Your task to perform on an android device: turn notification dots on Image 0: 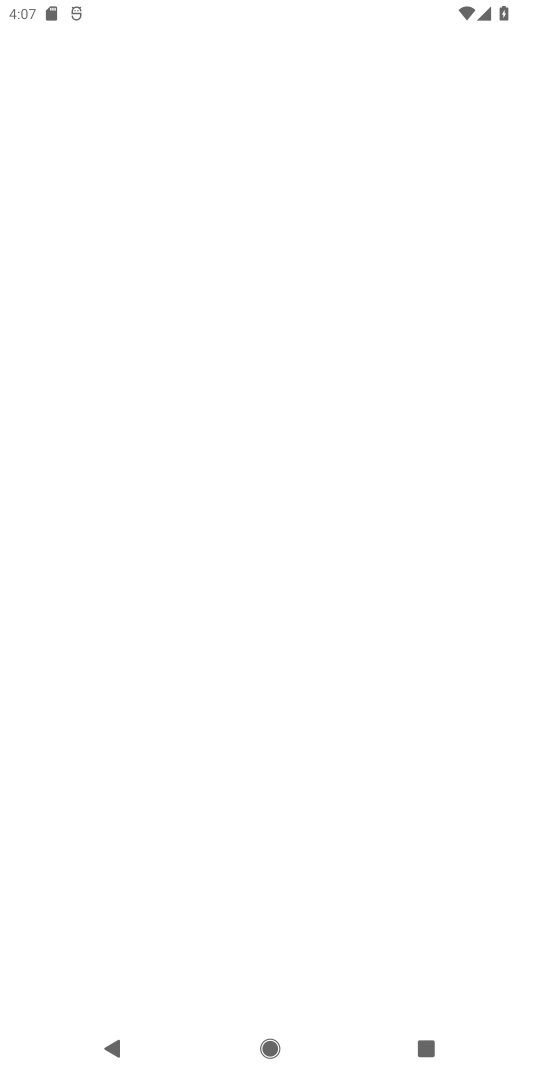
Step 0: press home button
Your task to perform on an android device: turn notification dots on Image 1: 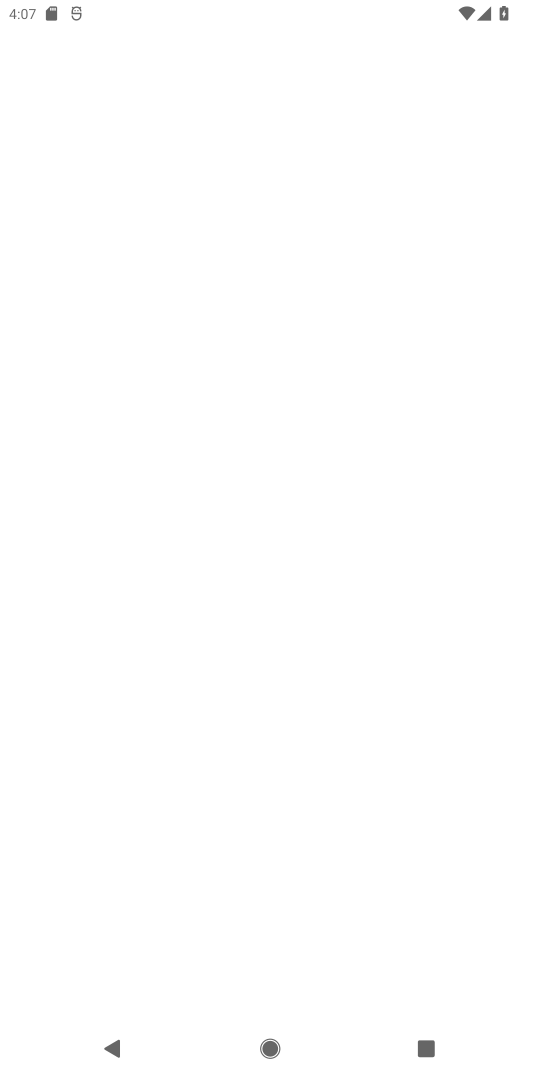
Step 1: press home button
Your task to perform on an android device: turn notification dots on Image 2: 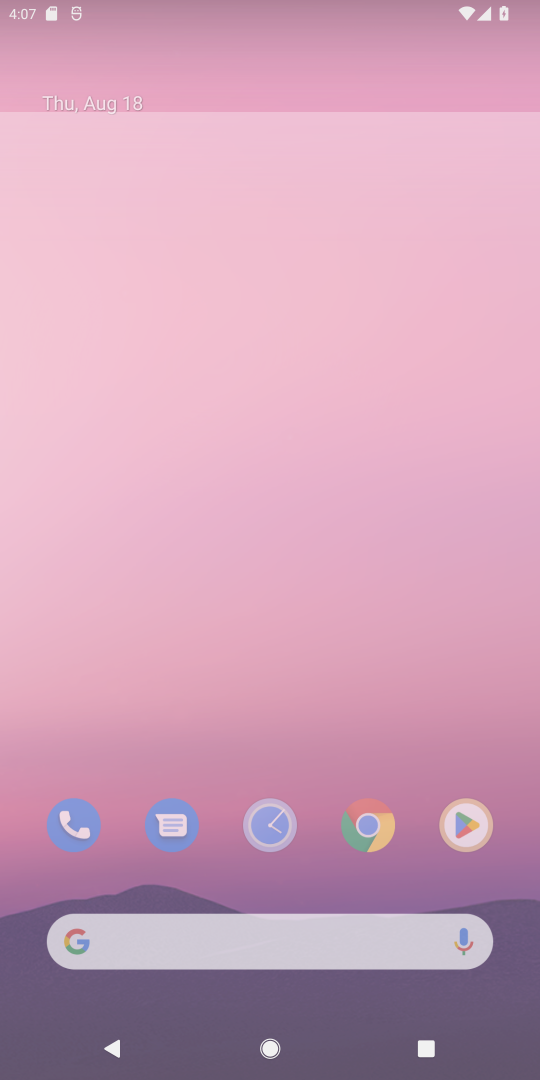
Step 2: press home button
Your task to perform on an android device: turn notification dots on Image 3: 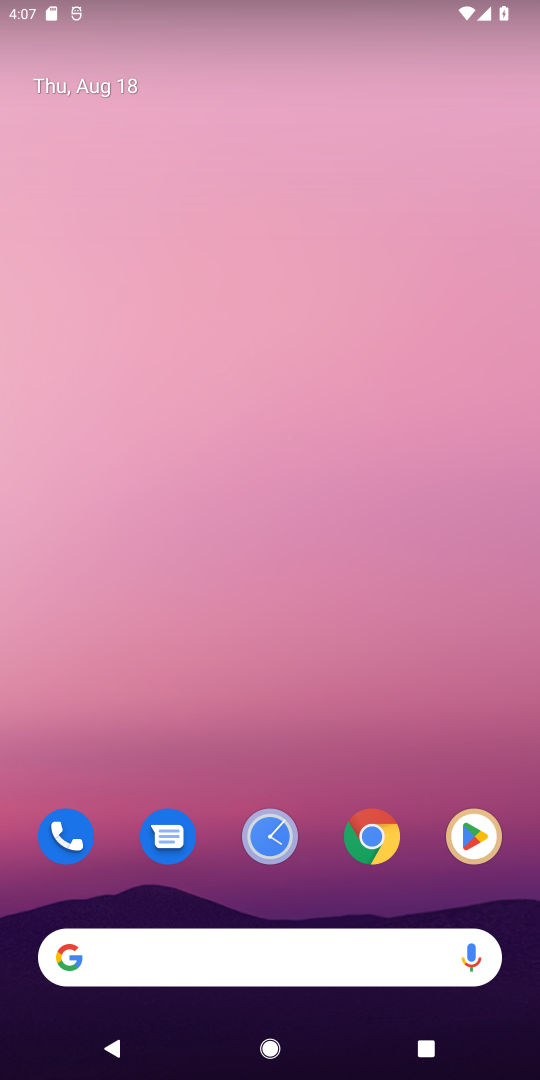
Step 3: drag from (245, 668) to (343, 279)
Your task to perform on an android device: turn notification dots on Image 4: 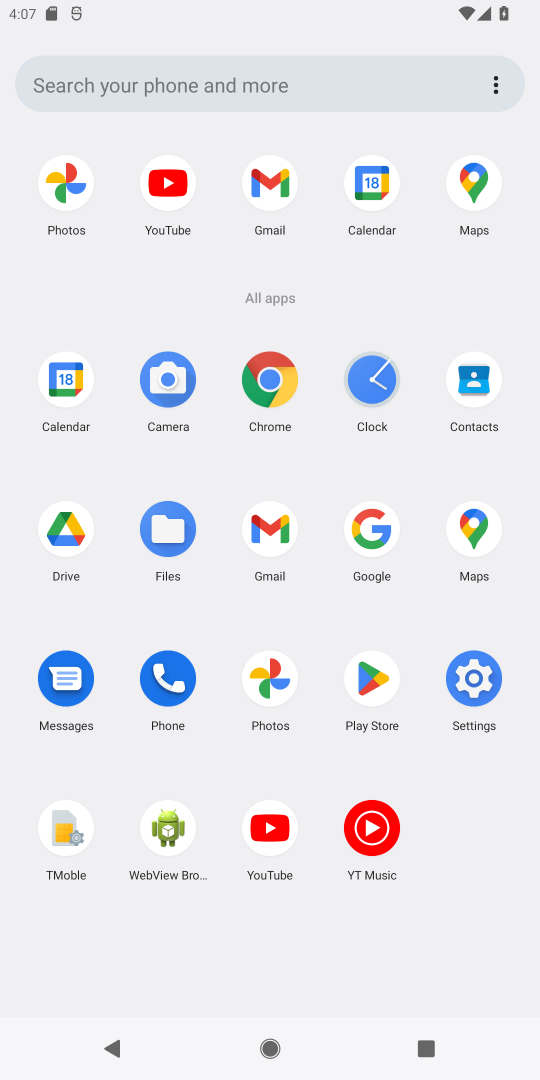
Step 4: click (481, 670)
Your task to perform on an android device: turn notification dots on Image 5: 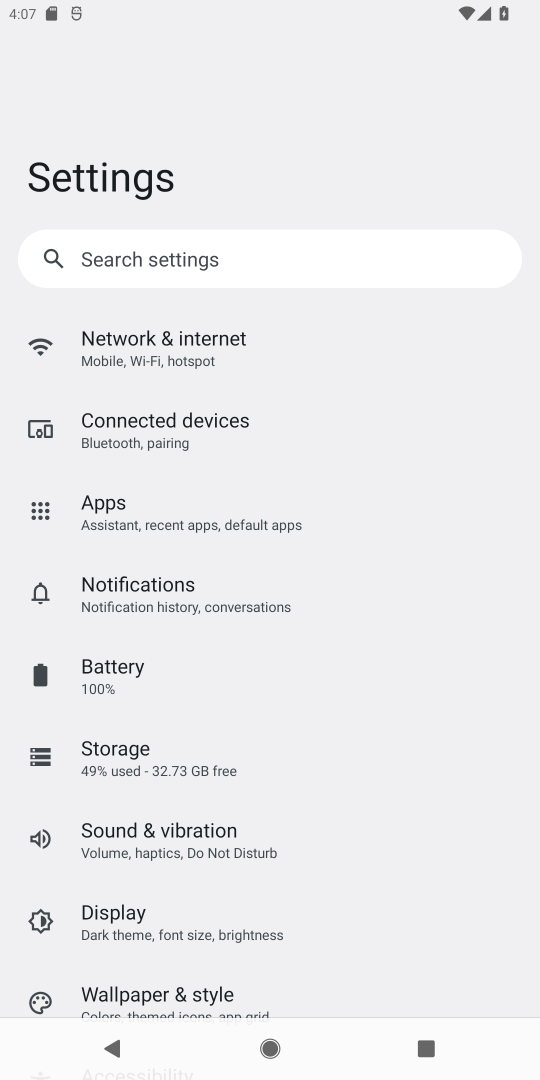
Step 5: click (194, 579)
Your task to perform on an android device: turn notification dots on Image 6: 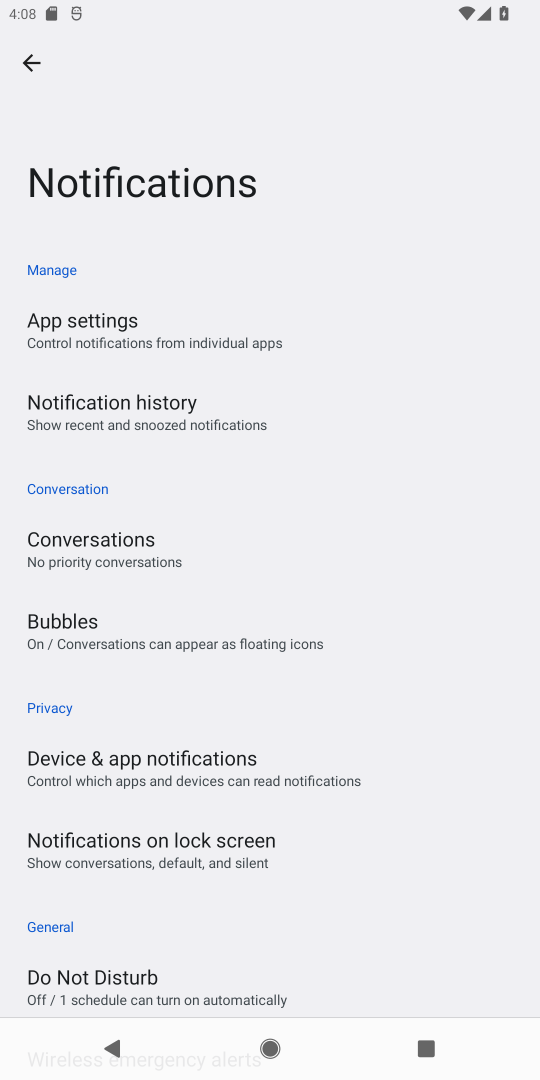
Step 6: drag from (167, 942) to (196, 533)
Your task to perform on an android device: turn notification dots on Image 7: 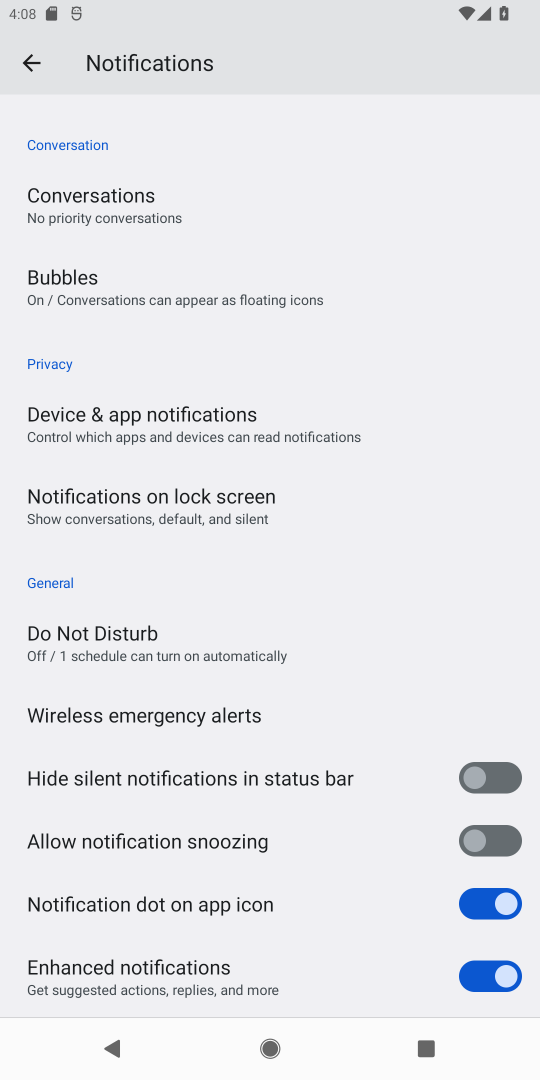
Step 7: click (170, 450)
Your task to perform on an android device: turn notification dots on Image 8: 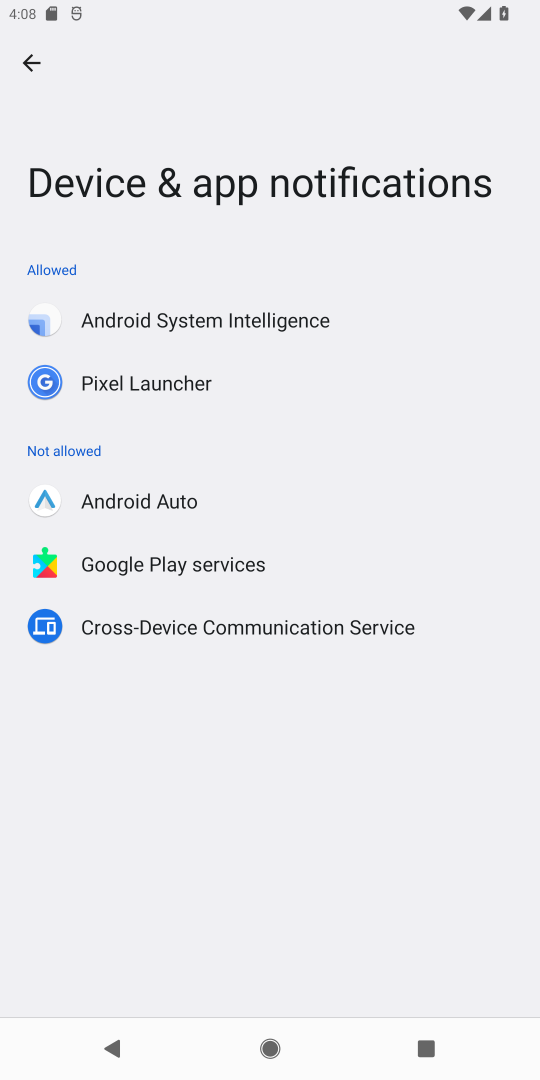
Step 8: click (29, 87)
Your task to perform on an android device: turn notification dots on Image 9: 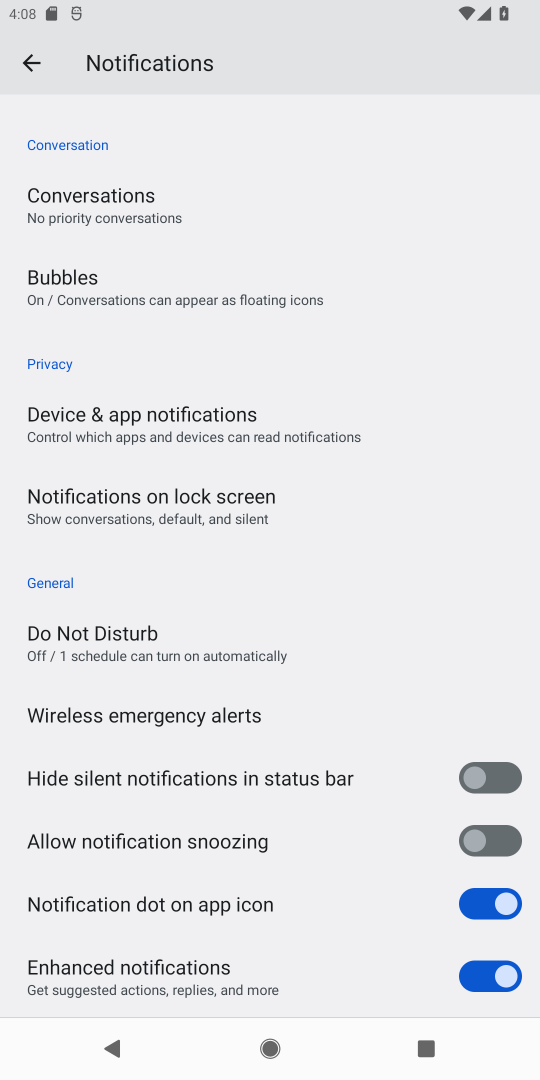
Step 9: task complete